Your task to perform on an android device: Show me the alarms in the clock app Image 0: 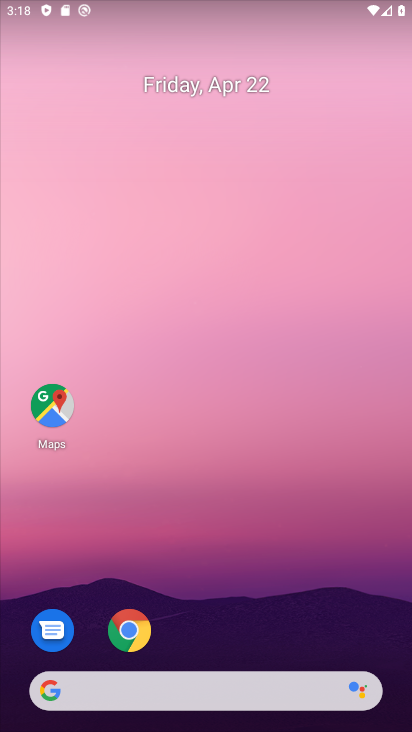
Step 0: drag from (208, 632) to (246, 331)
Your task to perform on an android device: Show me the alarms in the clock app Image 1: 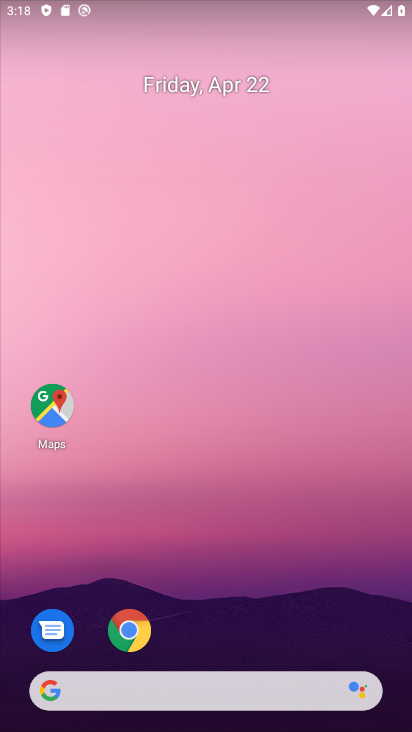
Step 1: drag from (204, 643) to (246, 248)
Your task to perform on an android device: Show me the alarms in the clock app Image 2: 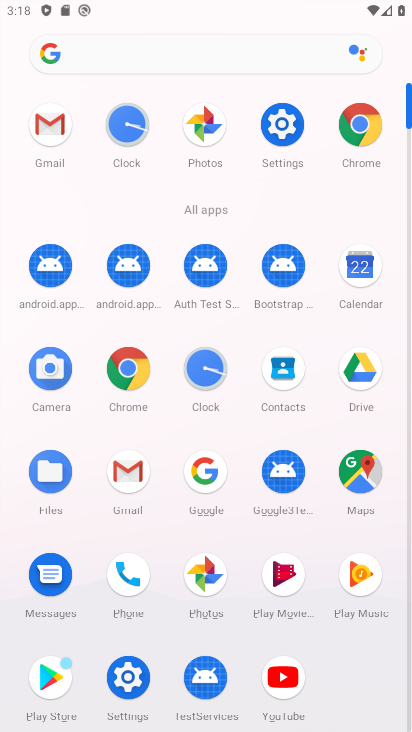
Step 2: click (189, 370)
Your task to perform on an android device: Show me the alarms in the clock app Image 3: 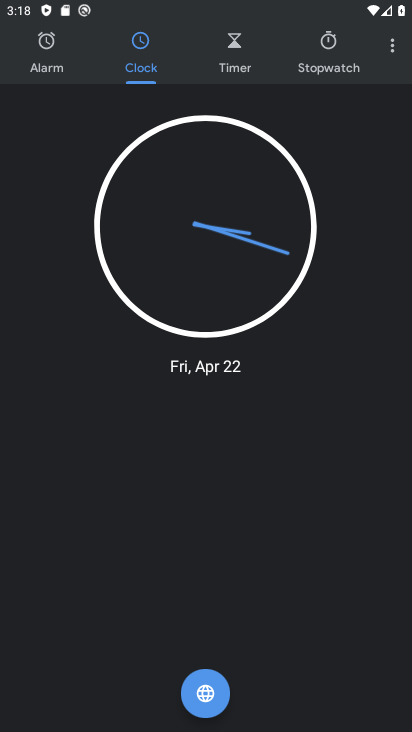
Step 3: click (62, 57)
Your task to perform on an android device: Show me the alarms in the clock app Image 4: 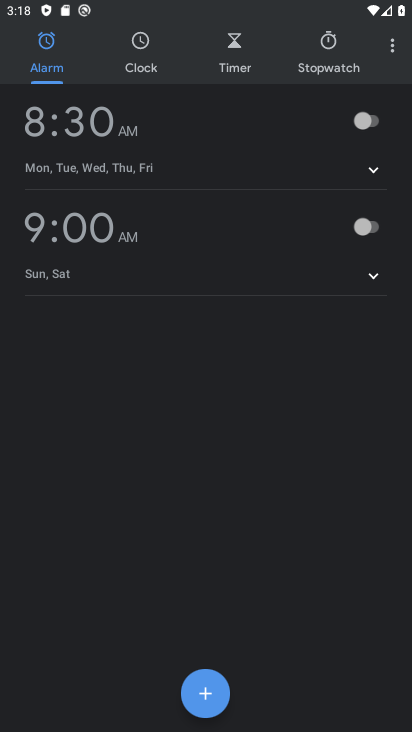
Step 4: task complete